Your task to perform on an android device: visit the assistant section in the google photos Image 0: 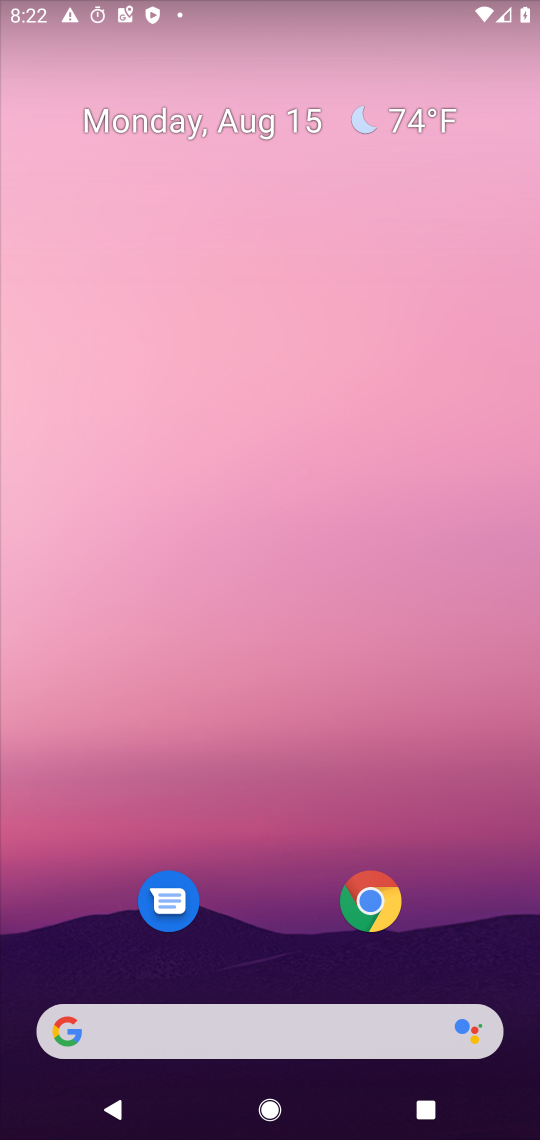
Step 0: drag from (232, 996) to (264, 384)
Your task to perform on an android device: visit the assistant section in the google photos Image 1: 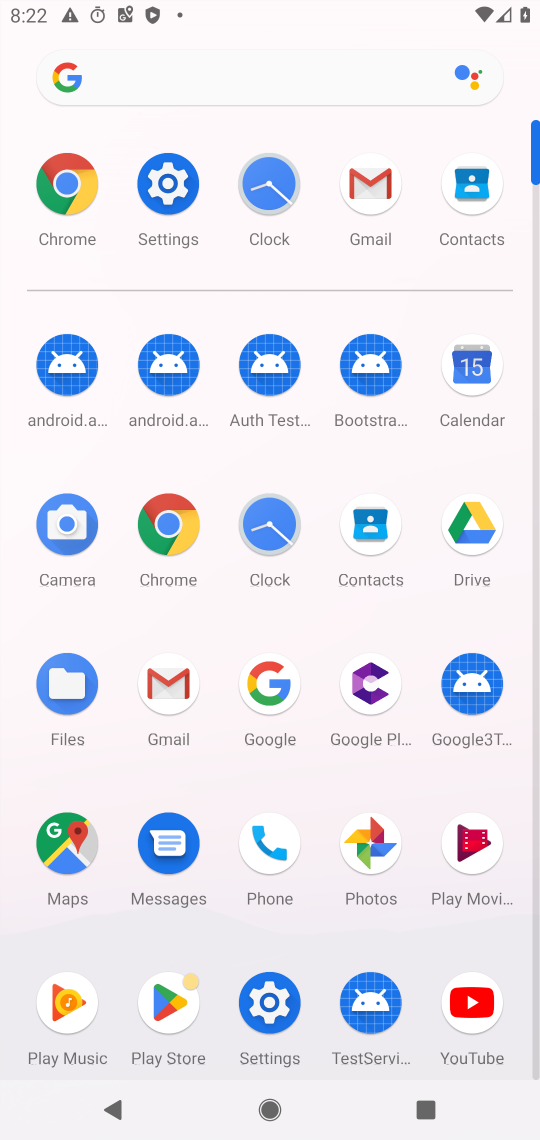
Step 1: click (353, 854)
Your task to perform on an android device: visit the assistant section in the google photos Image 2: 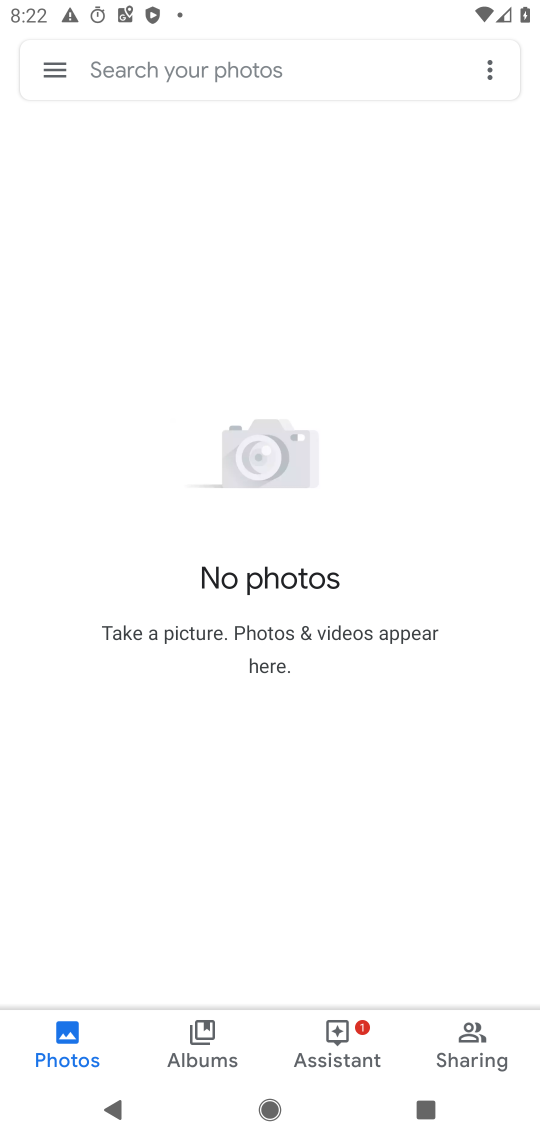
Step 2: click (336, 1033)
Your task to perform on an android device: visit the assistant section in the google photos Image 3: 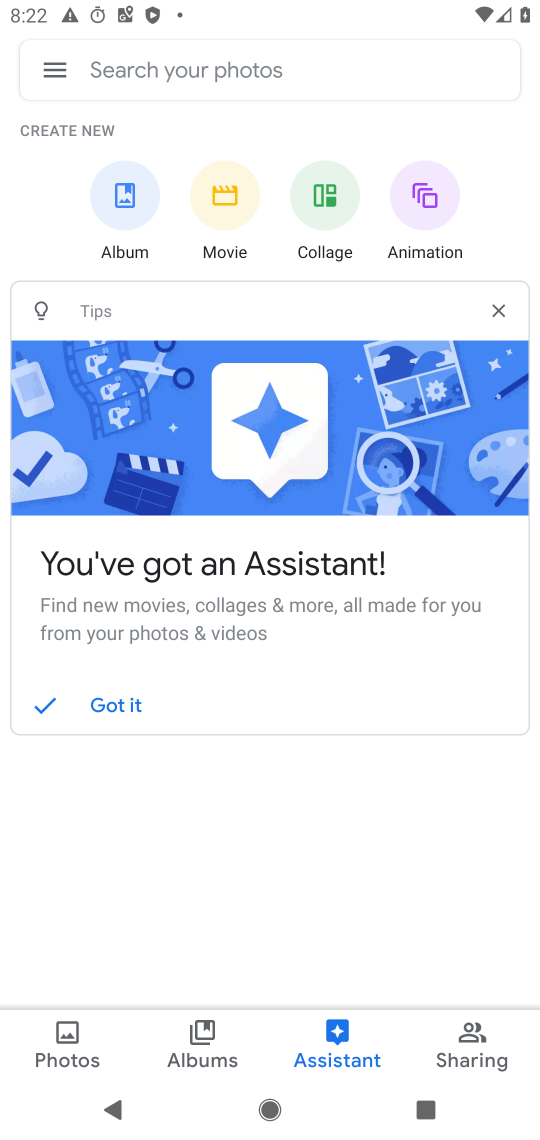
Step 3: task complete